Your task to perform on an android device: Open eBay Image 0: 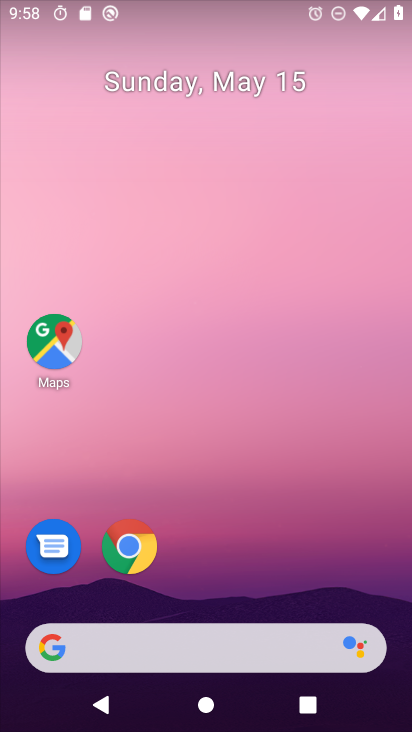
Step 0: click (272, 637)
Your task to perform on an android device: Open eBay Image 1: 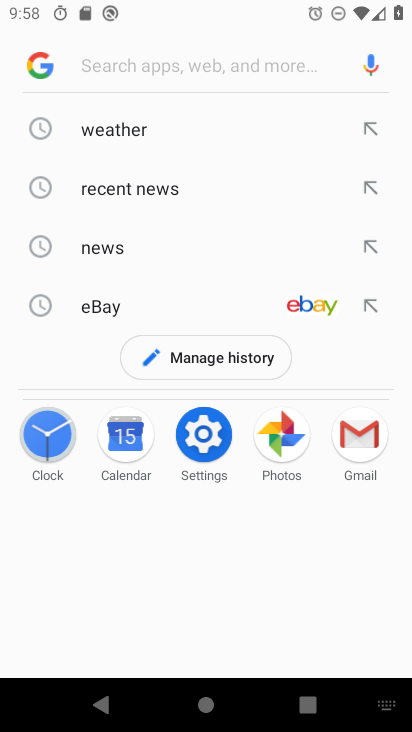
Step 1: click (105, 289)
Your task to perform on an android device: Open eBay Image 2: 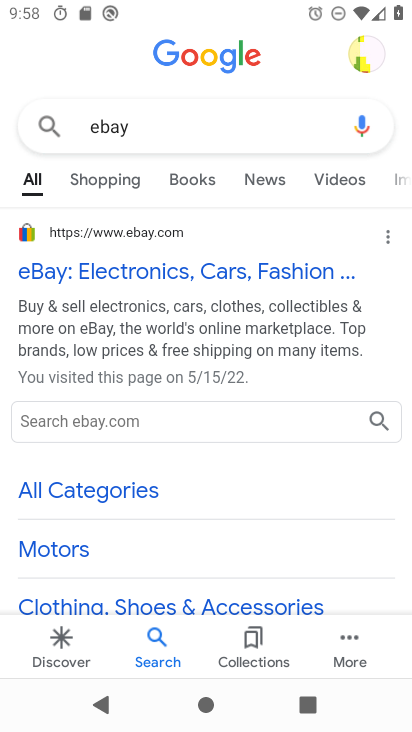
Step 2: click (47, 267)
Your task to perform on an android device: Open eBay Image 3: 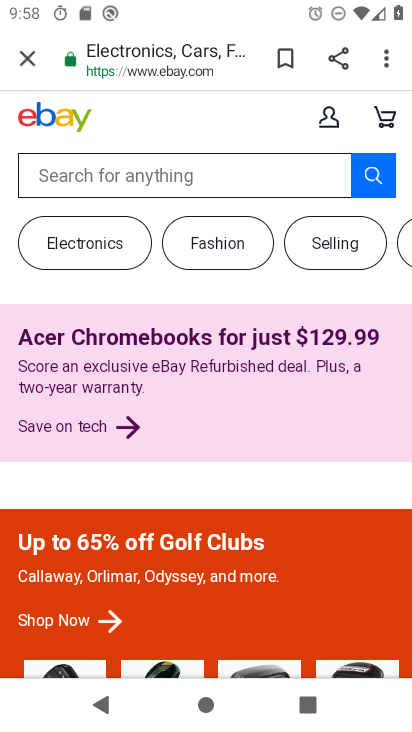
Step 3: task complete